Your task to perform on an android device: Show the shopping cart on newegg. Image 0: 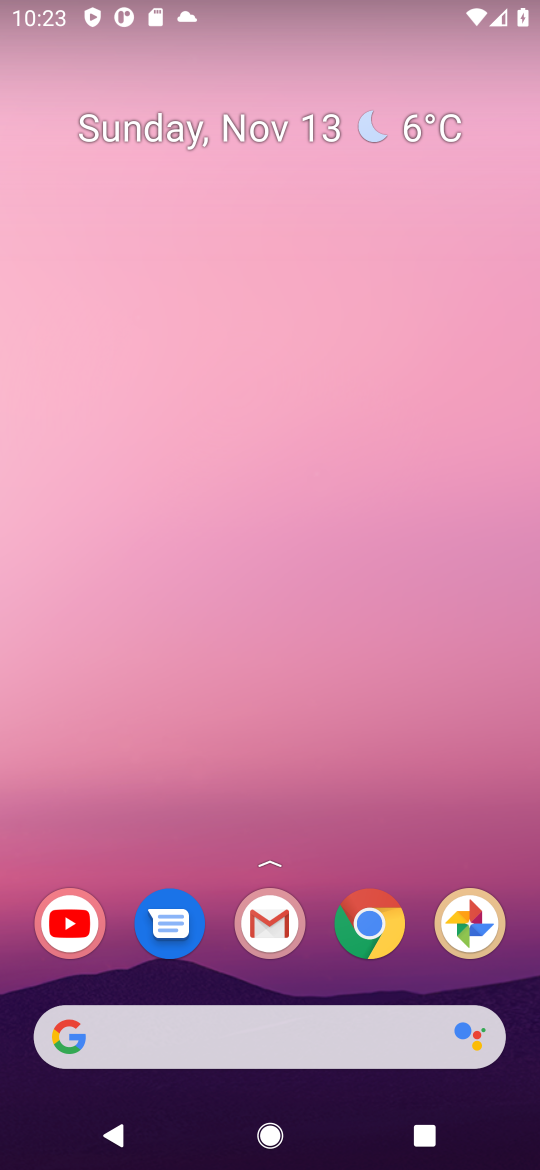
Step 0: click (377, 932)
Your task to perform on an android device: Show the shopping cart on newegg. Image 1: 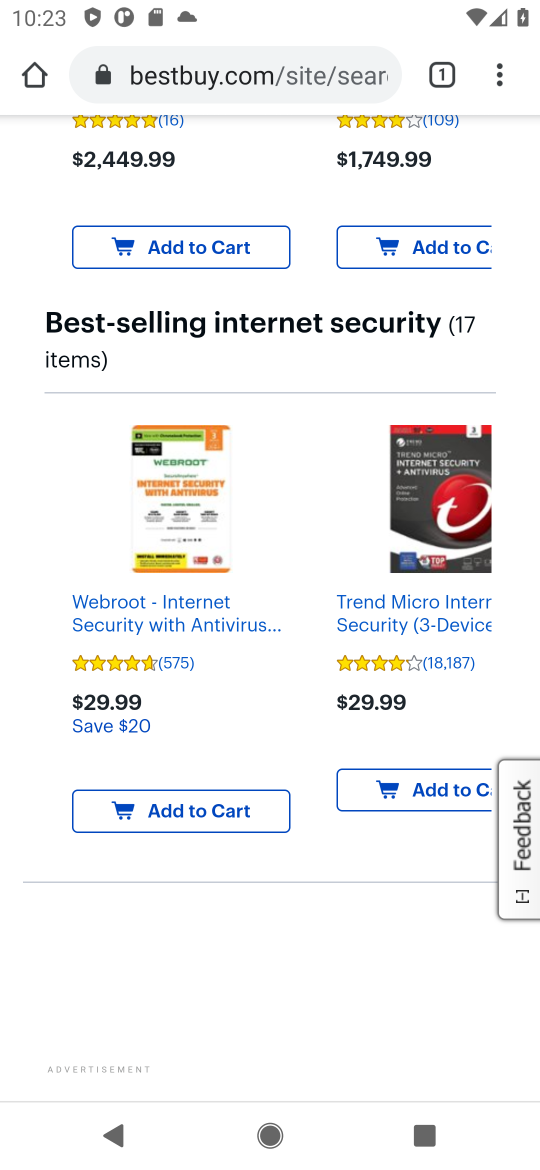
Step 1: click (321, 71)
Your task to perform on an android device: Show the shopping cart on newegg. Image 2: 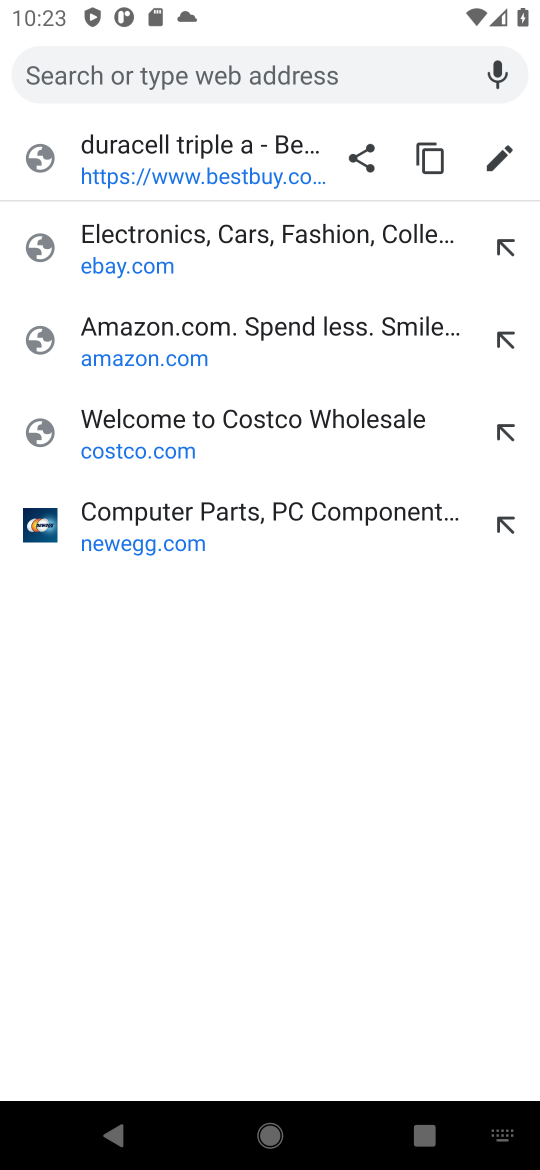
Step 2: click (301, 514)
Your task to perform on an android device: Show the shopping cart on newegg. Image 3: 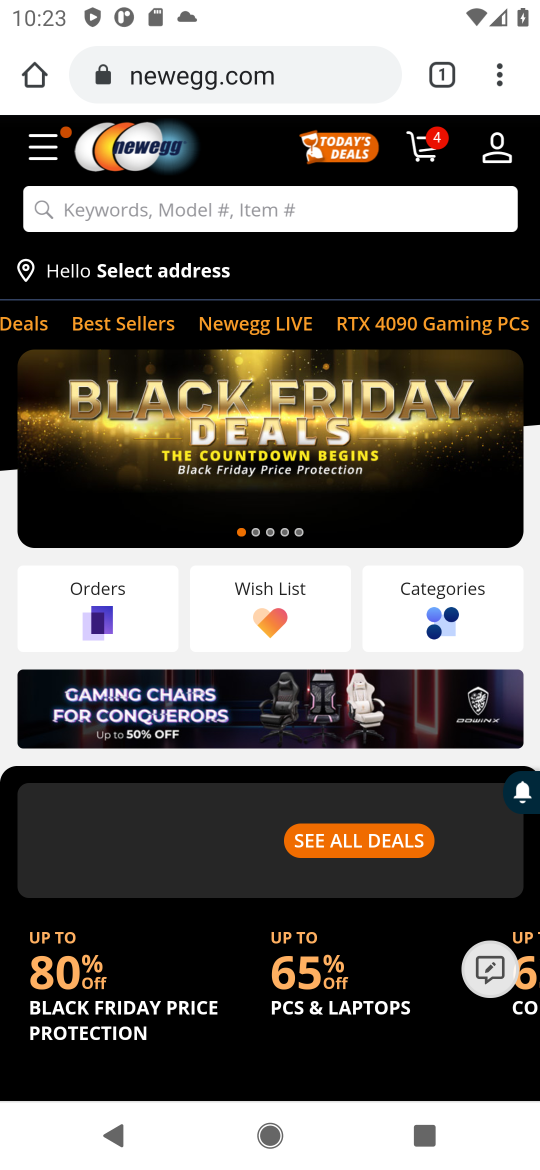
Step 3: click (420, 150)
Your task to perform on an android device: Show the shopping cart on newegg. Image 4: 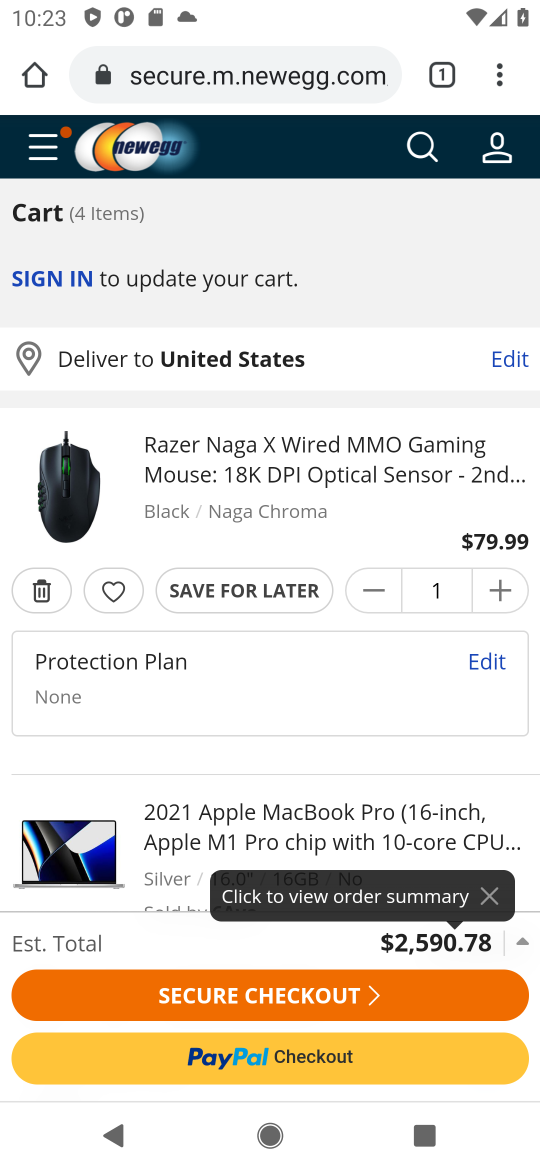
Step 4: task complete